Your task to perform on an android device: Go to location settings Image 0: 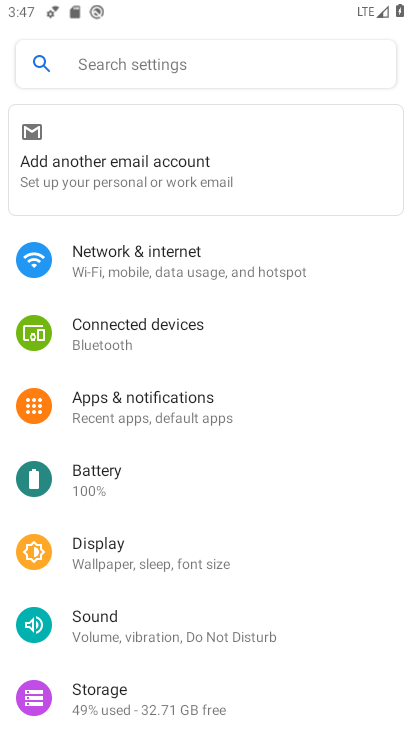
Step 0: drag from (190, 650) to (199, 371)
Your task to perform on an android device: Go to location settings Image 1: 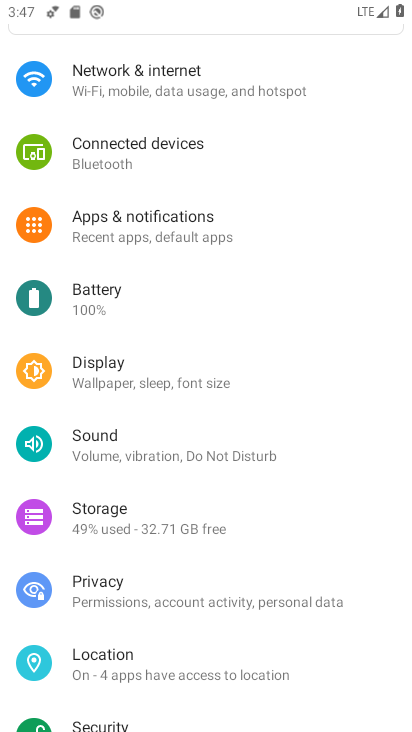
Step 1: click (165, 668)
Your task to perform on an android device: Go to location settings Image 2: 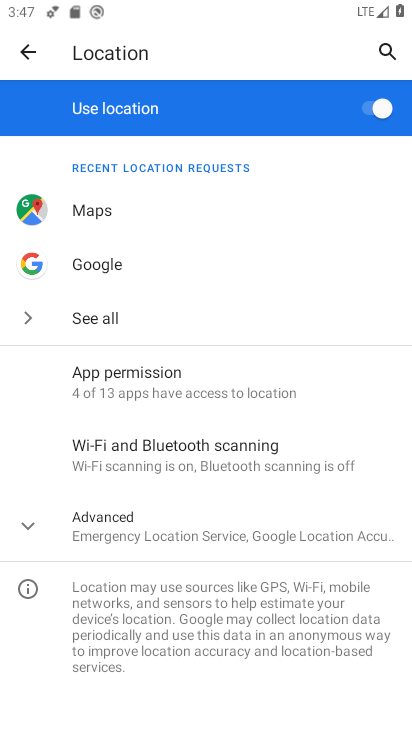
Step 2: task complete